Your task to perform on an android device: turn on javascript in the chrome app Image 0: 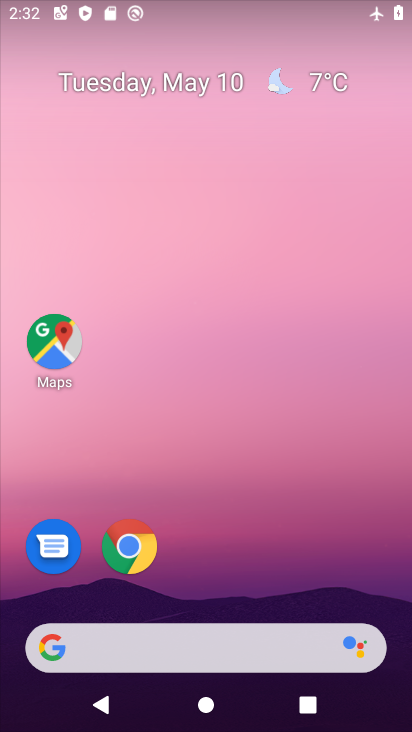
Step 0: drag from (234, 576) to (195, 156)
Your task to perform on an android device: turn on javascript in the chrome app Image 1: 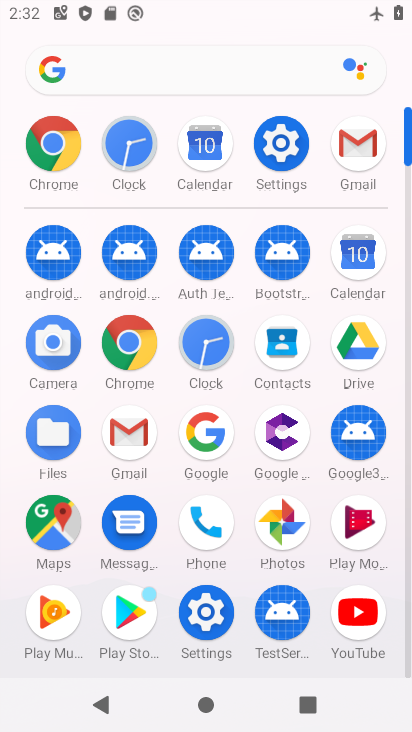
Step 1: click (45, 141)
Your task to perform on an android device: turn on javascript in the chrome app Image 2: 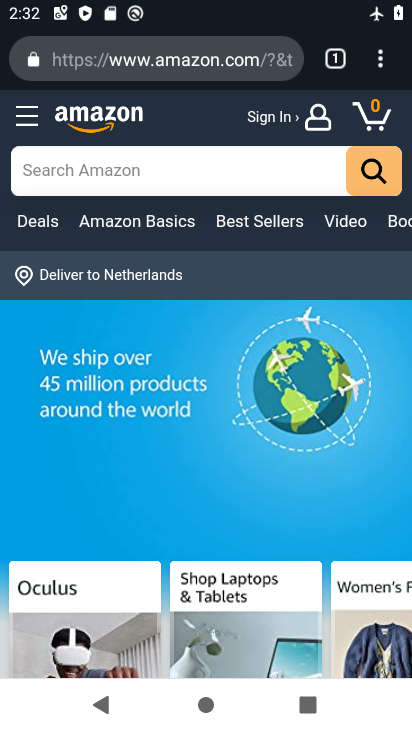
Step 2: drag from (379, 61) to (205, 584)
Your task to perform on an android device: turn on javascript in the chrome app Image 3: 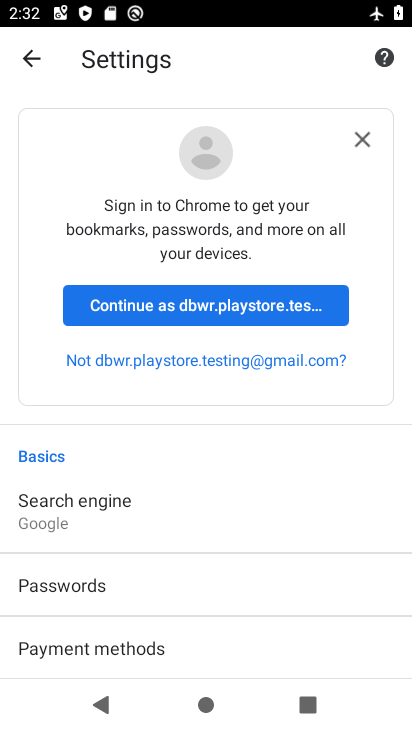
Step 3: drag from (186, 594) to (128, 328)
Your task to perform on an android device: turn on javascript in the chrome app Image 4: 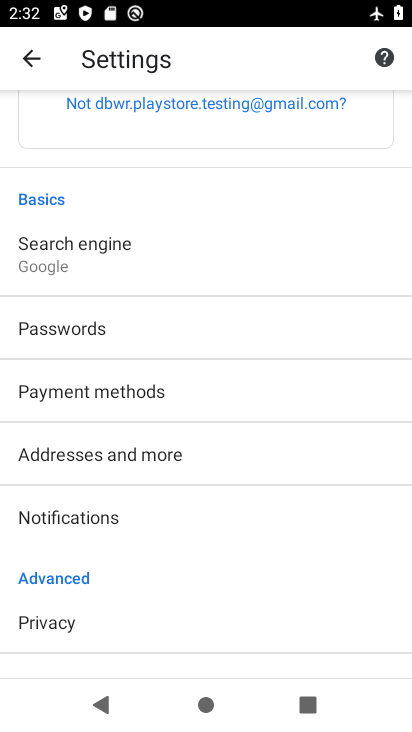
Step 4: drag from (173, 606) to (165, 255)
Your task to perform on an android device: turn on javascript in the chrome app Image 5: 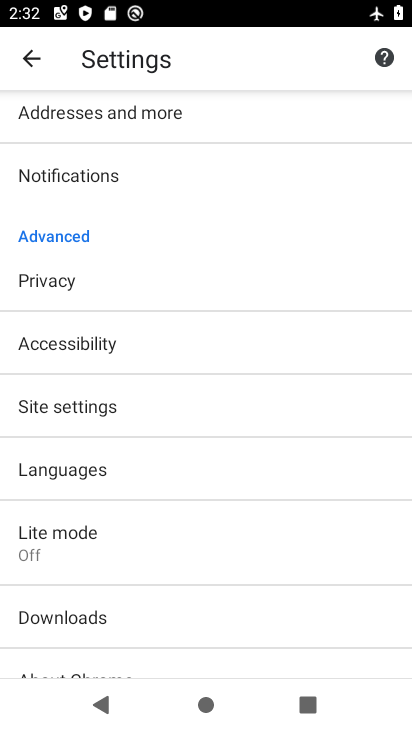
Step 5: click (89, 400)
Your task to perform on an android device: turn on javascript in the chrome app Image 6: 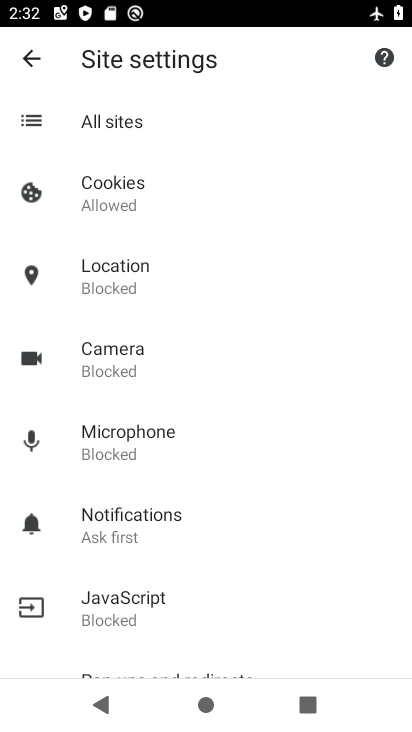
Step 6: drag from (173, 550) to (137, 235)
Your task to perform on an android device: turn on javascript in the chrome app Image 7: 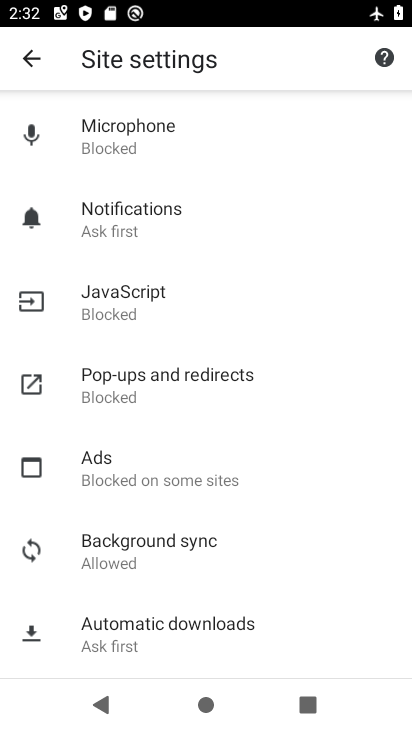
Step 7: click (145, 293)
Your task to perform on an android device: turn on javascript in the chrome app Image 8: 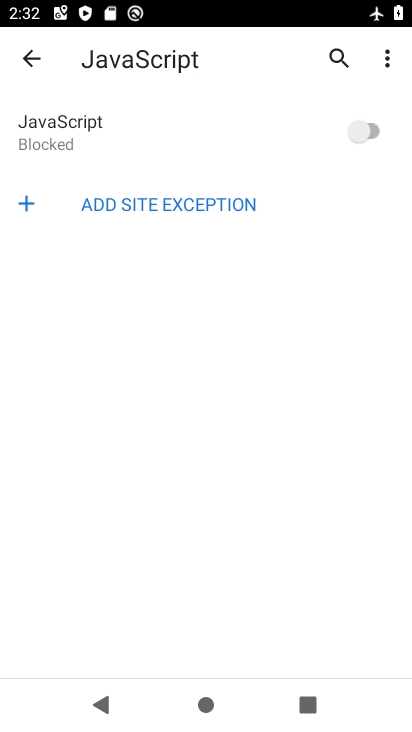
Step 8: click (356, 141)
Your task to perform on an android device: turn on javascript in the chrome app Image 9: 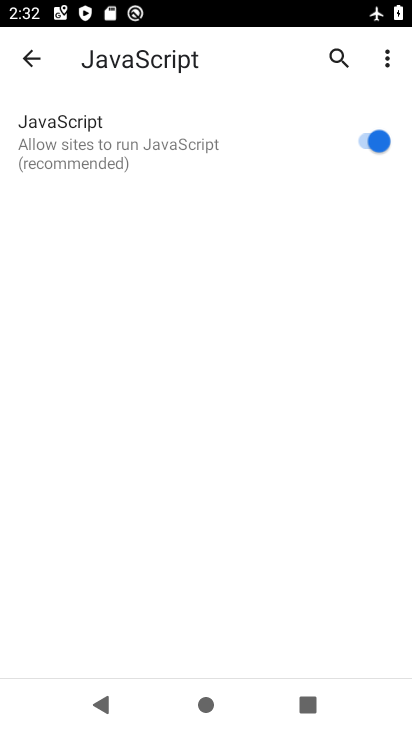
Step 9: task complete